Your task to perform on an android device: Go to Yahoo.com Image 0: 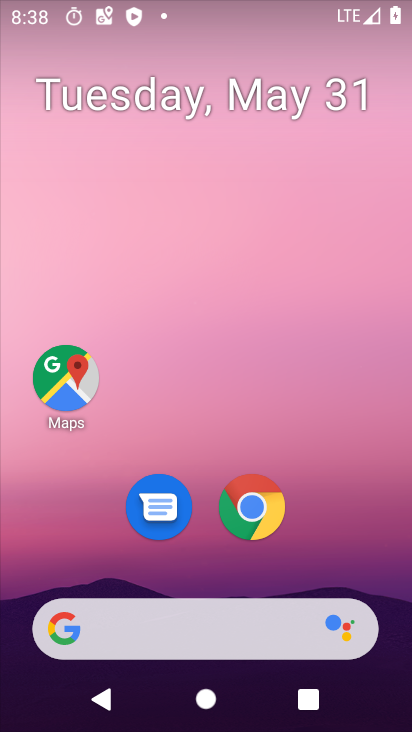
Step 0: click (251, 511)
Your task to perform on an android device: Go to Yahoo.com Image 1: 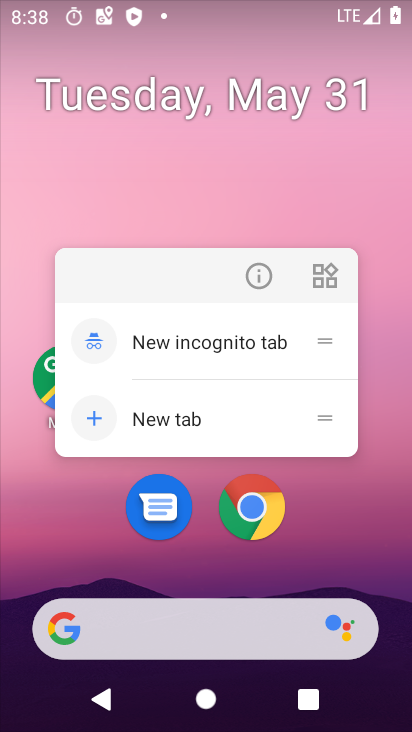
Step 1: click (252, 506)
Your task to perform on an android device: Go to Yahoo.com Image 2: 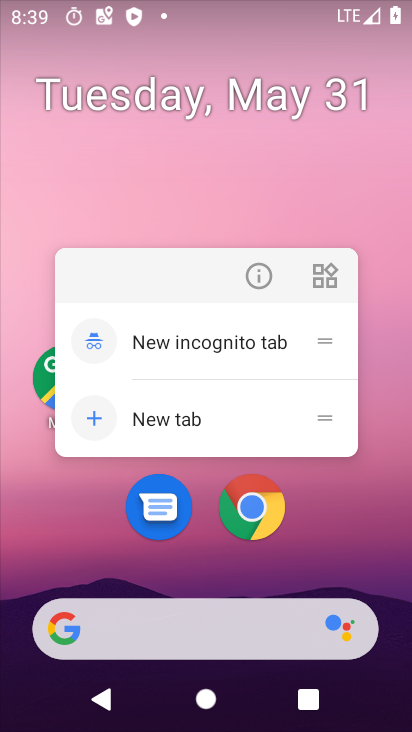
Step 2: click (249, 503)
Your task to perform on an android device: Go to Yahoo.com Image 3: 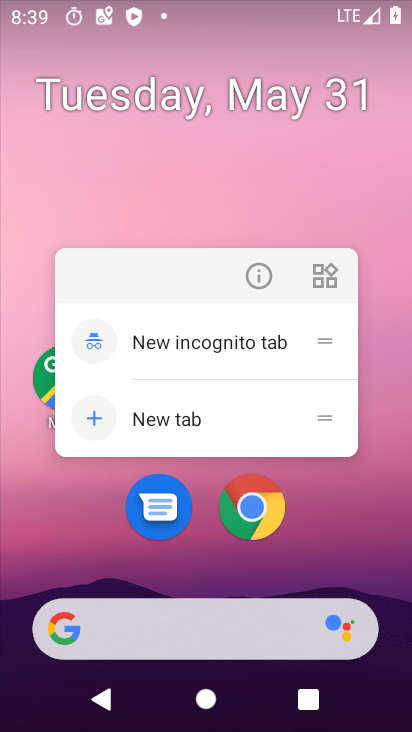
Step 3: click (249, 501)
Your task to perform on an android device: Go to Yahoo.com Image 4: 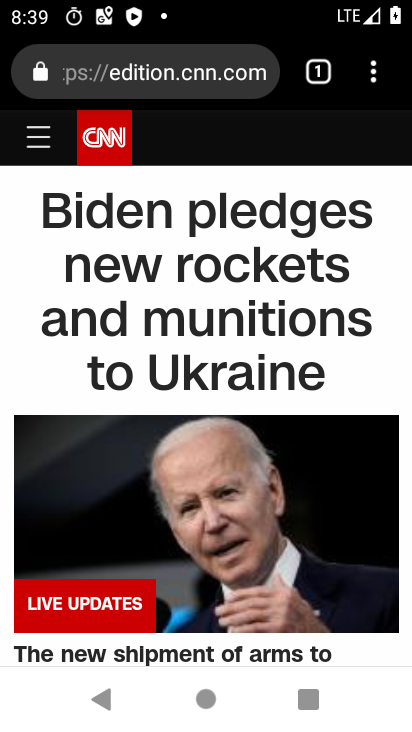
Step 4: click (320, 71)
Your task to perform on an android device: Go to Yahoo.com Image 5: 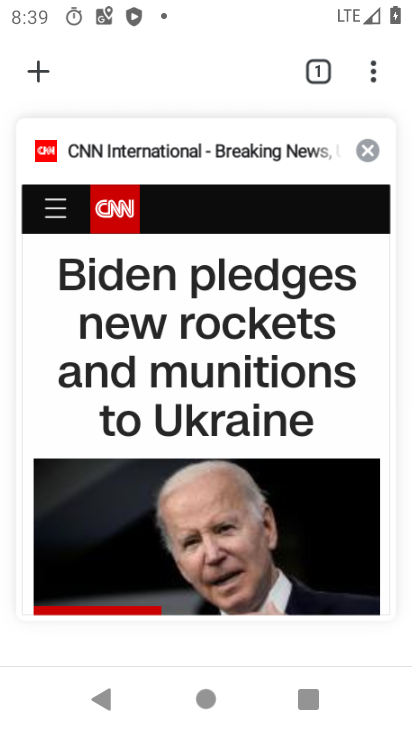
Step 5: click (369, 145)
Your task to perform on an android device: Go to Yahoo.com Image 6: 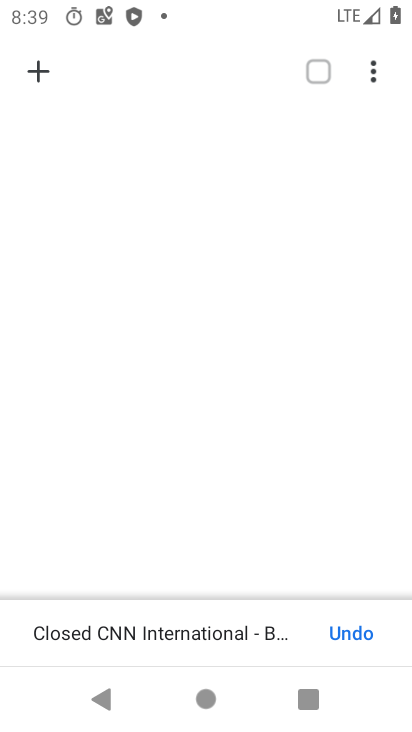
Step 6: click (41, 76)
Your task to perform on an android device: Go to Yahoo.com Image 7: 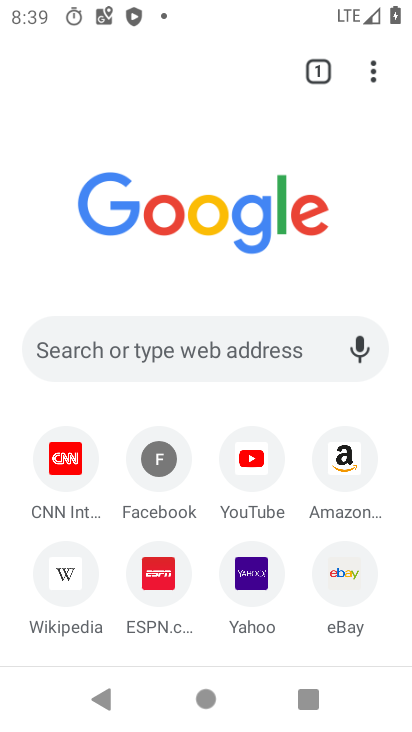
Step 7: click (246, 579)
Your task to perform on an android device: Go to Yahoo.com Image 8: 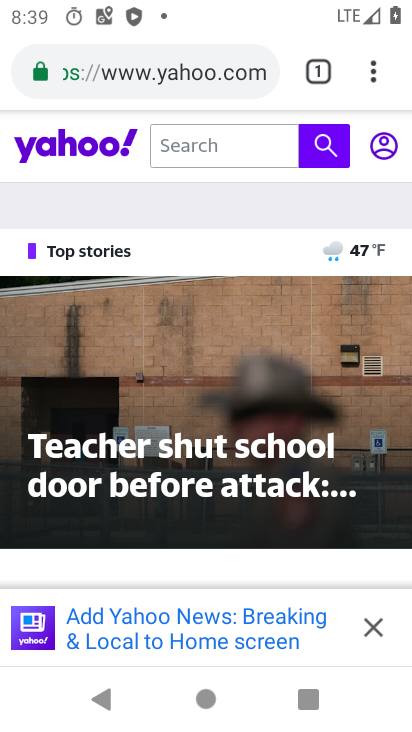
Step 8: task complete